Your task to perform on an android device: Show me productivity apps on the Play Store Image 0: 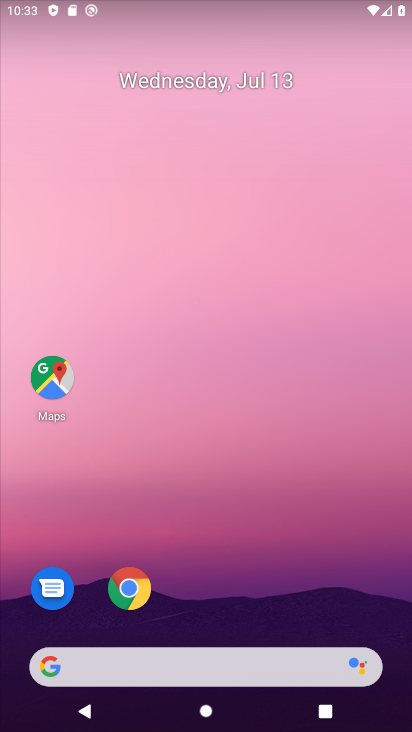
Step 0: drag from (313, 595) to (292, 59)
Your task to perform on an android device: Show me productivity apps on the Play Store Image 1: 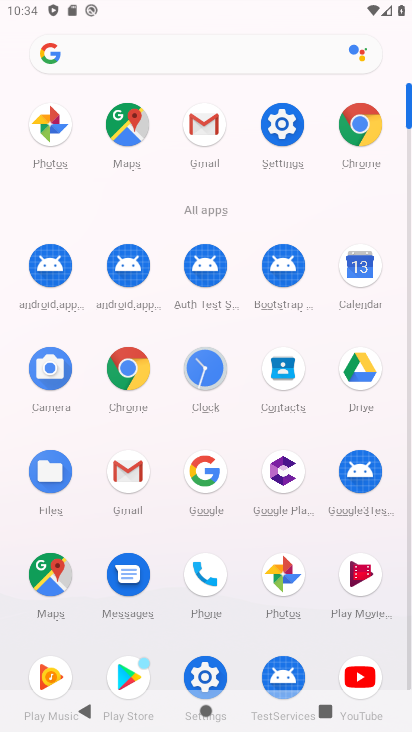
Step 1: click (134, 671)
Your task to perform on an android device: Show me productivity apps on the Play Store Image 2: 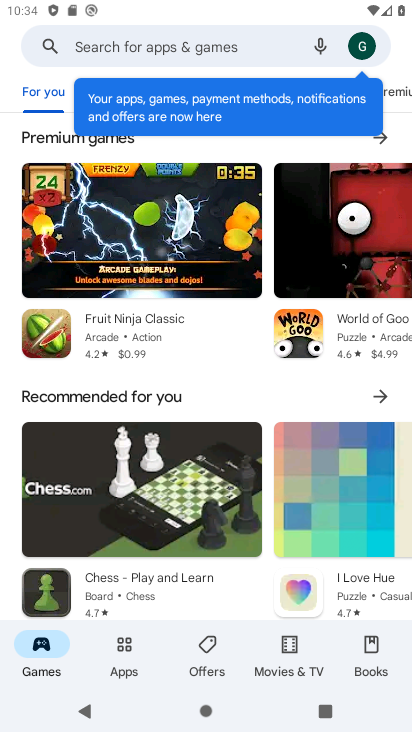
Step 2: click (131, 650)
Your task to perform on an android device: Show me productivity apps on the Play Store Image 3: 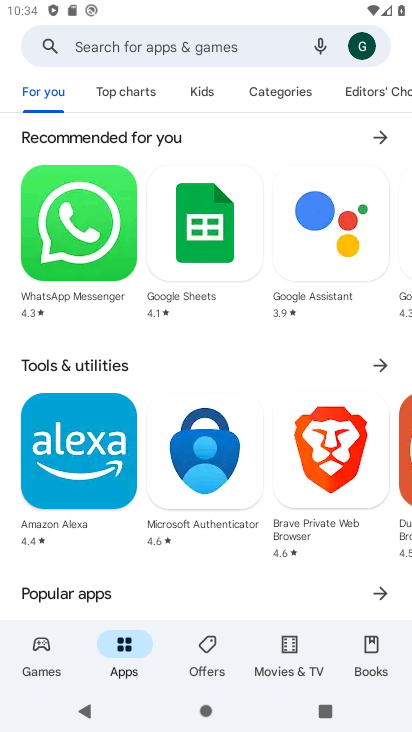
Step 3: click (274, 92)
Your task to perform on an android device: Show me productivity apps on the Play Store Image 4: 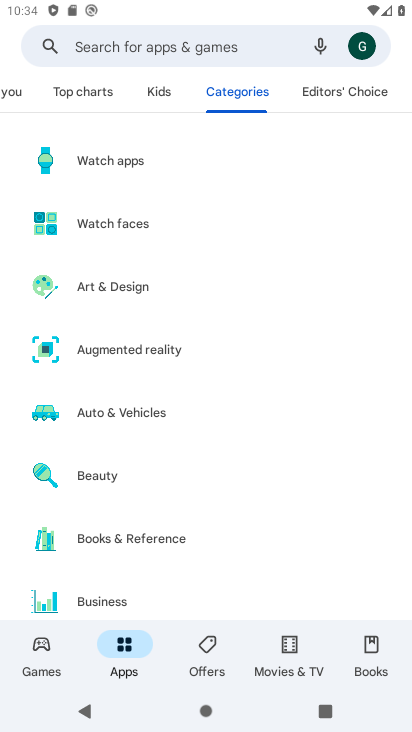
Step 4: drag from (190, 571) to (172, 233)
Your task to perform on an android device: Show me productivity apps on the Play Store Image 5: 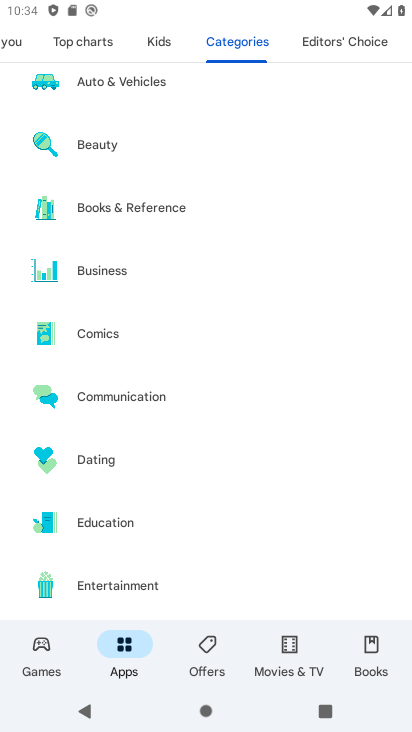
Step 5: drag from (191, 548) to (182, 133)
Your task to perform on an android device: Show me productivity apps on the Play Store Image 6: 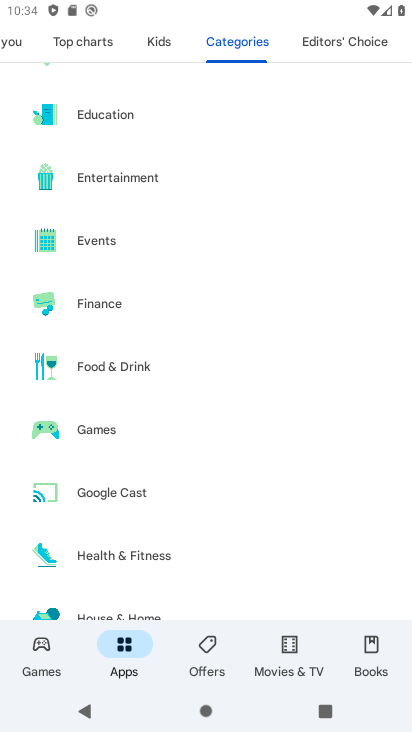
Step 6: drag from (203, 538) to (184, 166)
Your task to perform on an android device: Show me productivity apps on the Play Store Image 7: 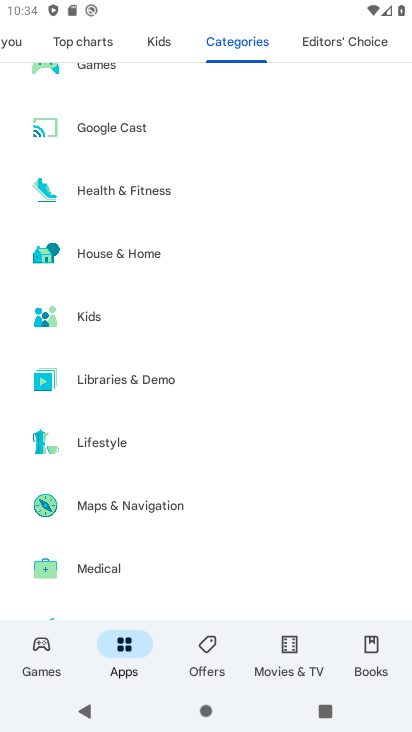
Step 7: drag from (206, 521) to (171, 151)
Your task to perform on an android device: Show me productivity apps on the Play Store Image 8: 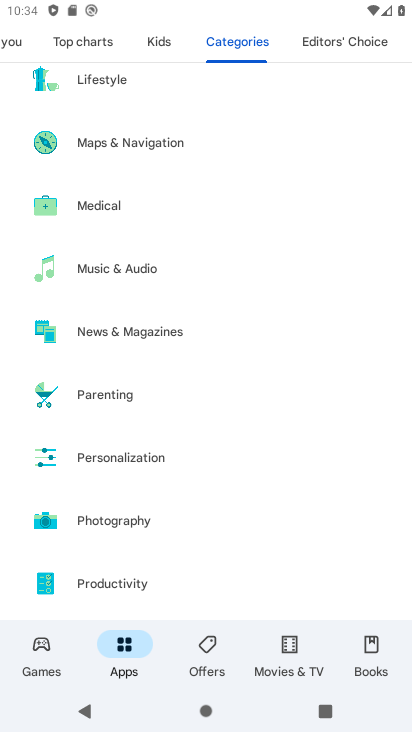
Step 8: drag from (199, 540) to (177, 196)
Your task to perform on an android device: Show me productivity apps on the Play Store Image 9: 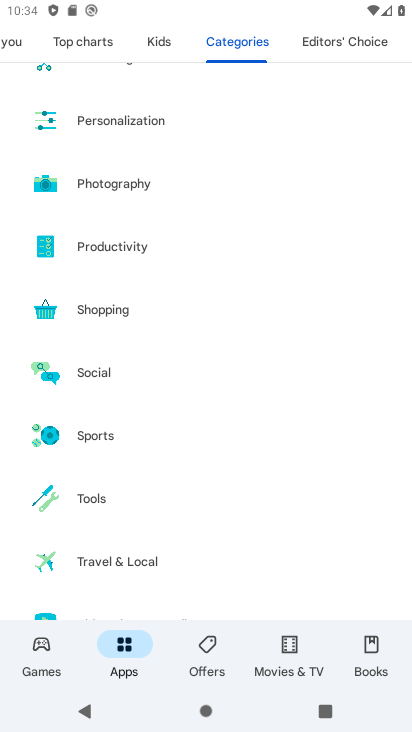
Step 9: click (170, 250)
Your task to perform on an android device: Show me productivity apps on the Play Store Image 10: 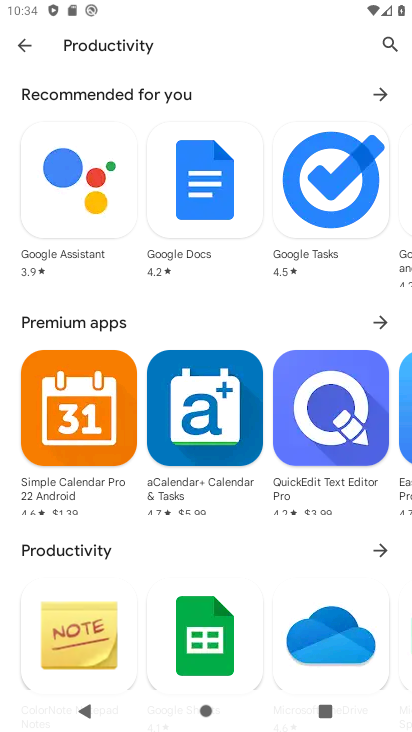
Step 10: task complete